Your task to perform on an android device: Empty the shopping cart on newegg.com. Search for jbl charge 4 on newegg.com, select the first entry, add it to the cart, then select checkout. Image 0: 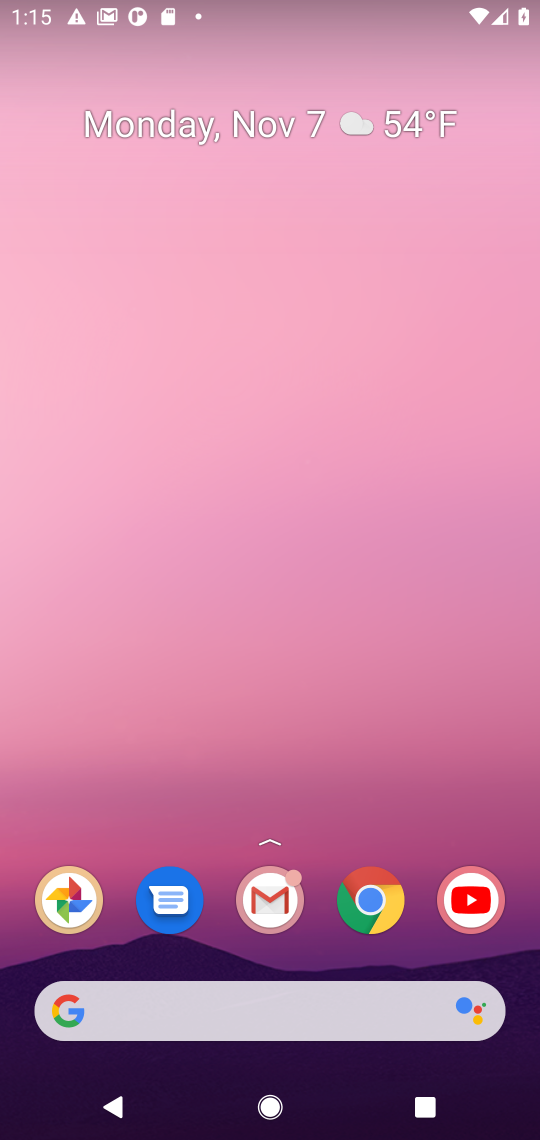
Step 0: click (266, 1035)
Your task to perform on an android device: Empty the shopping cart on newegg.com. Search for jbl charge 4 on newegg.com, select the first entry, add it to the cart, then select checkout. Image 1: 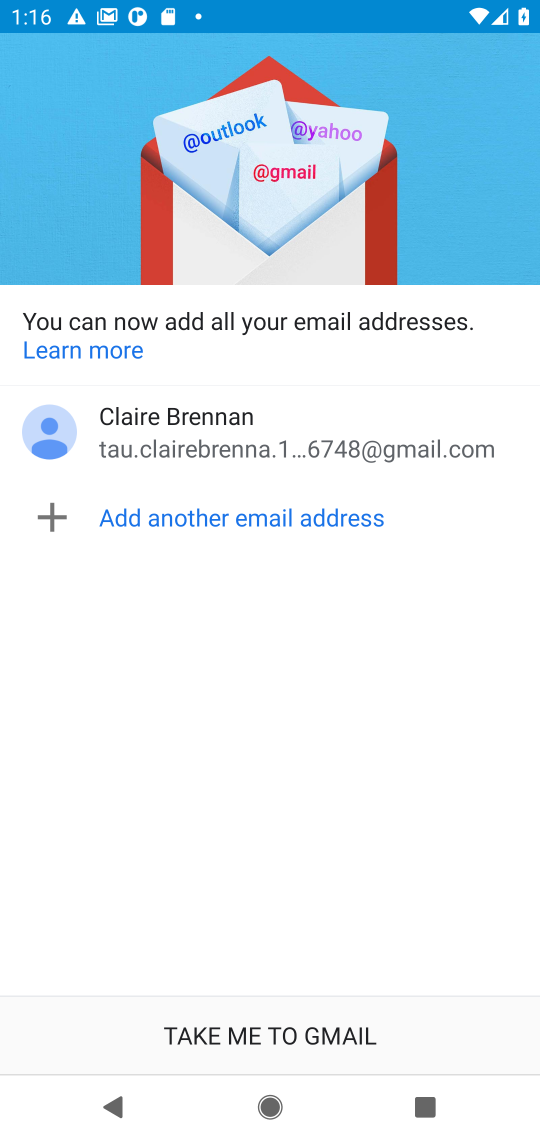
Step 1: press home button
Your task to perform on an android device: Empty the shopping cart on newegg.com. Search for jbl charge 4 on newegg.com, select the first entry, add it to the cart, then select checkout. Image 2: 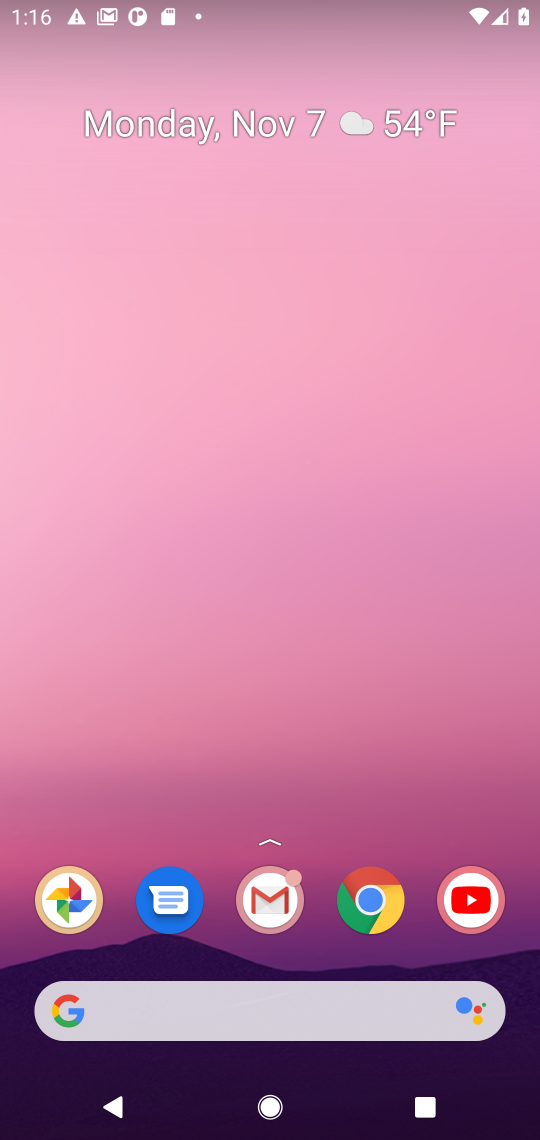
Step 2: click (305, 990)
Your task to perform on an android device: Empty the shopping cart on newegg.com. Search for jbl charge 4 on newegg.com, select the first entry, add it to the cart, then select checkout. Image 3: 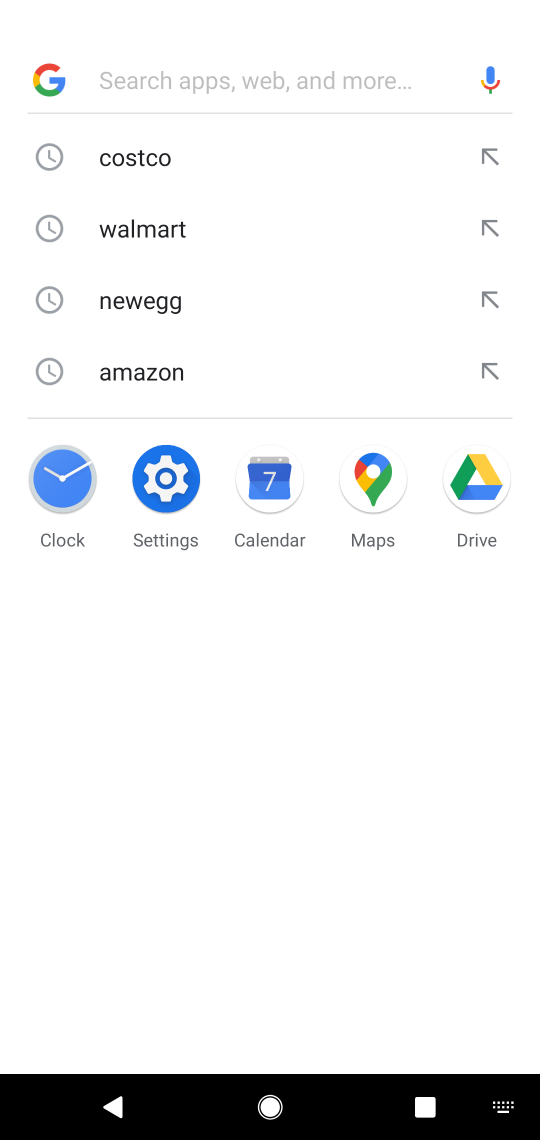
Step 3: type "newegg"
Your task to perform on an android device: Empty the shopping cart on newegg.com. Search for jbl charge 4 on newegg.com, select the first entry, add it to the cart, then select checkout. Image 4: 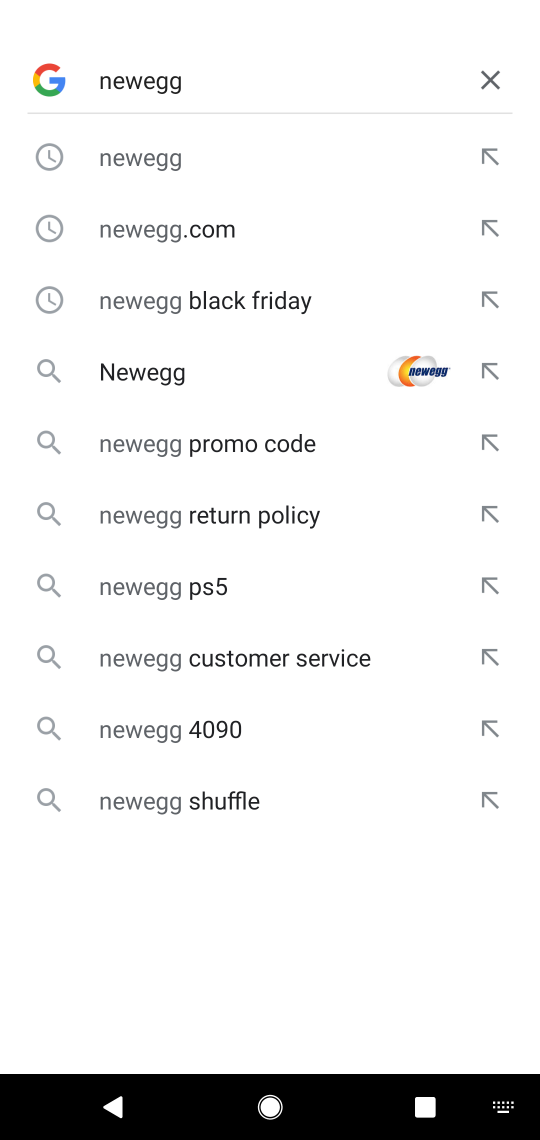
Step 4: click (137, 223)
Your task to perform on an android device: Empty the shopping cart on newegg.com. Search for jbl charge 4 on newegg.com, select the first entry, add it to the cart, then select checkout. Image 5: 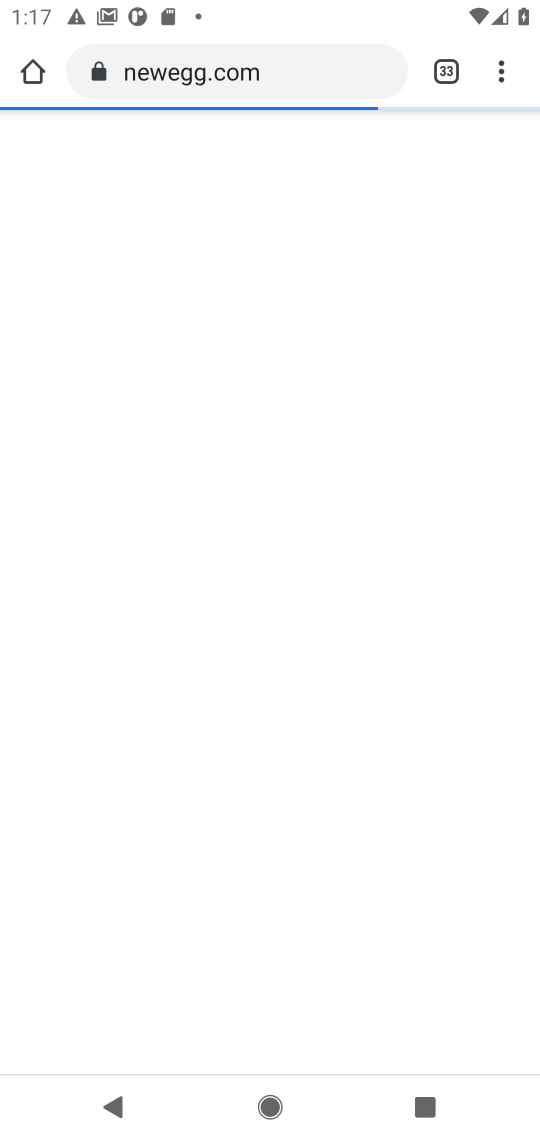
Step 5: task complete